Your task to perform on an android device: turn smart compose on in the gmail app Image 0: 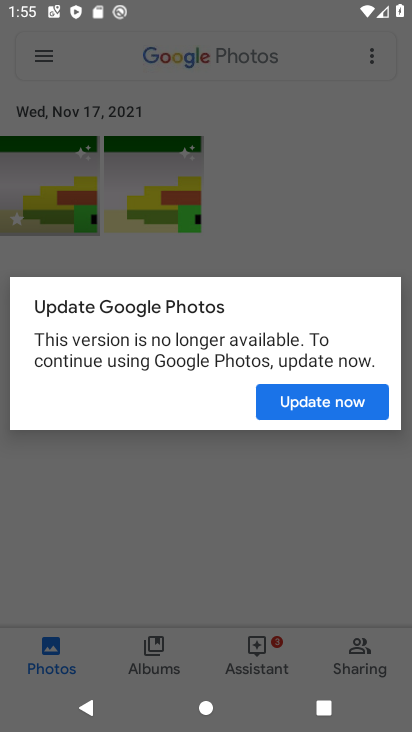
Step 0: press home button
Your task to perform on an android device: turn smart compose on in the gmail app Image 1: 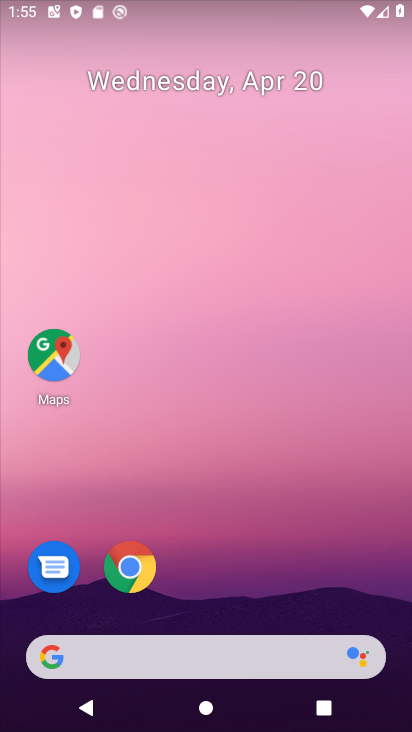
Step 1: drag from (271, 596) to (317, 178)
Your task to perform on an android device: turn smart compose on in the gmail app Image 2: 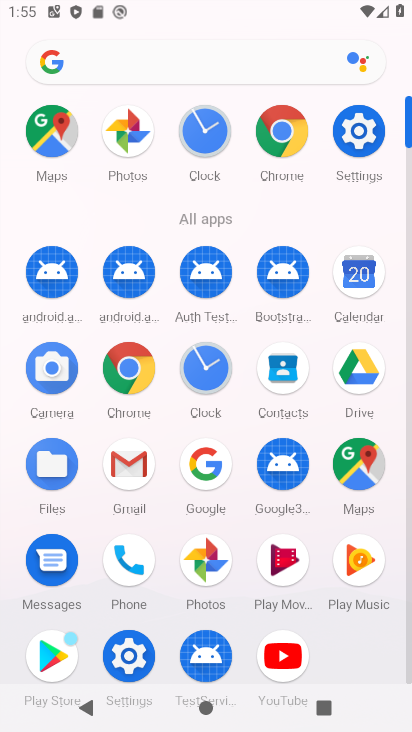
Step 2: click (131, 475)
Your task to perform on an android device: turn smart compose on in the gmail app Image 3: 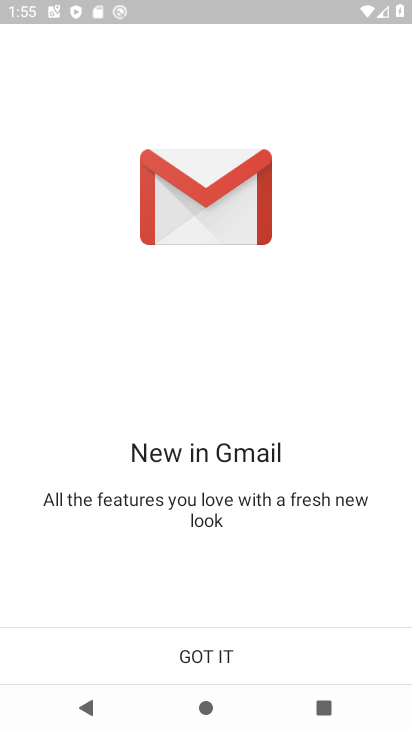
Step 3: click (174, 656)
Your task to perform on an android device: turn smart compose on in the gmail app Image 4: 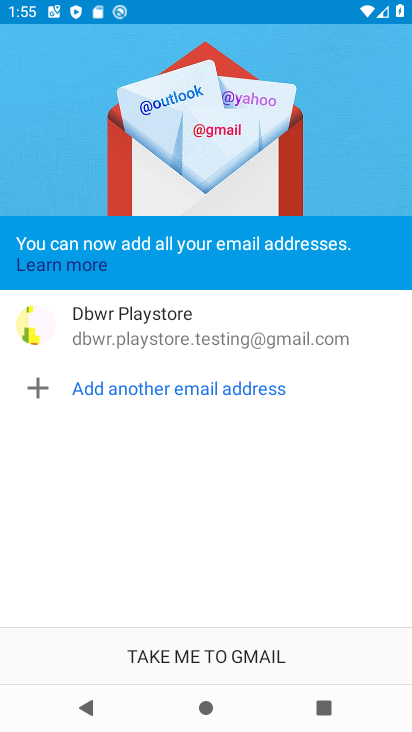
Step 4: click (175, 660)
Your task to perform on an android device: turn smart compose on in the gmail app Image 5: 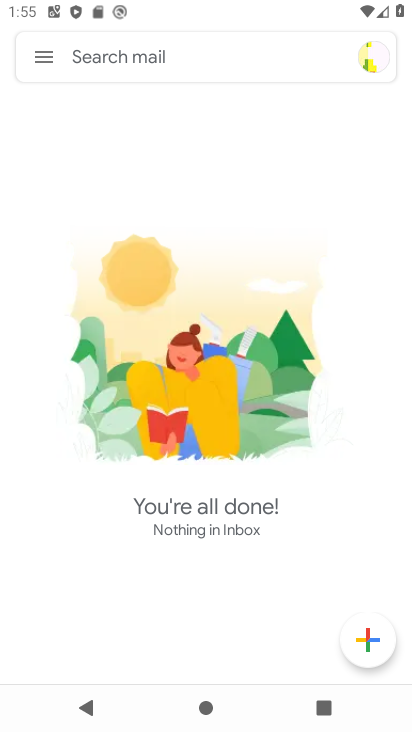
Step 5: click (45, 61)
Your task to perform on an android device: turn smart compose on in the gmail app Image 6: 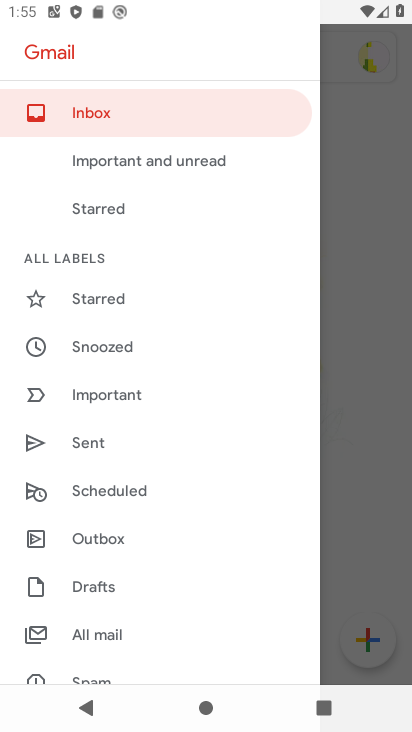
Step 6: drag from (140, 592) to (180, 295)
Your task to perform on an android device: turn smart compose on in the gmail app Image 7: 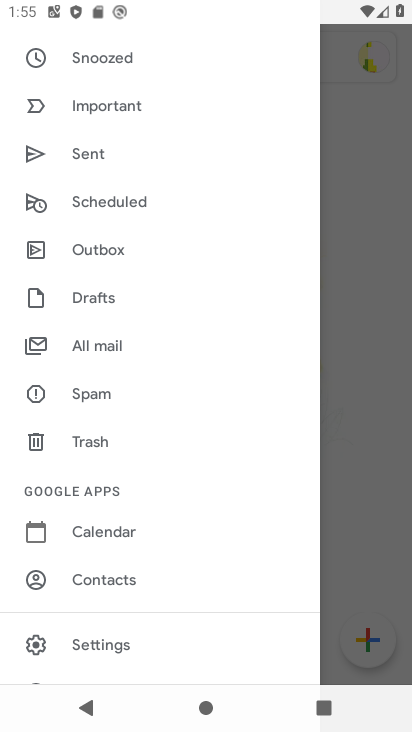
Step 7: click (96, 646)
Your task to perform on an android device: turn smart compose on in the gmail app Image 8: 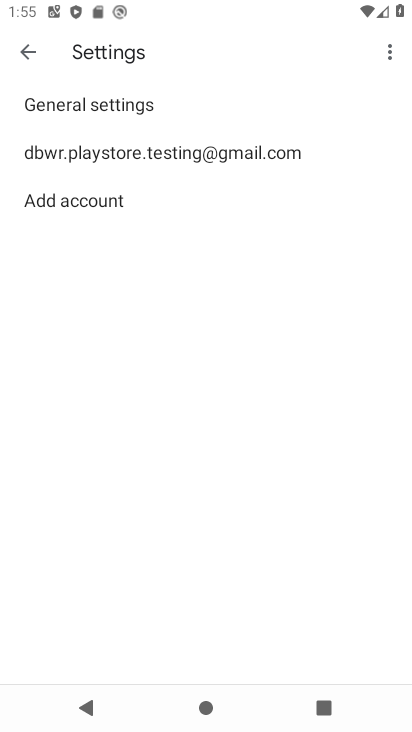
Step 8: click (158, 154)
Your task to perform on an android device: turn smart compose on in the gmail app Image 9: 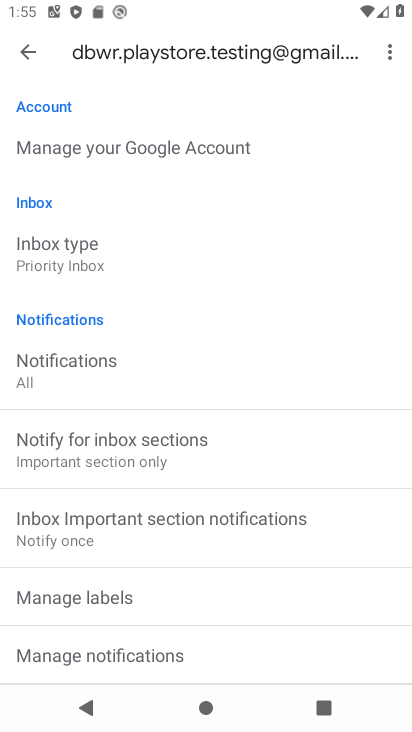
Step 9: task complete